Your task to perform on an android device: Go to Google maps Image 0: 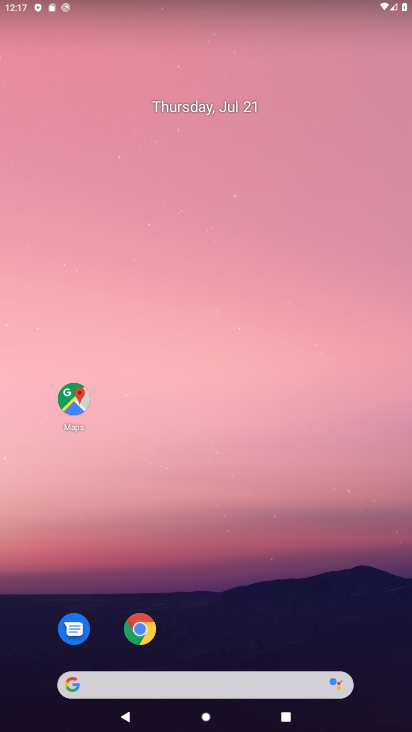
Step 0: click (296, 119)
Your task to perform on an android device: Go to Google maps Image 1: 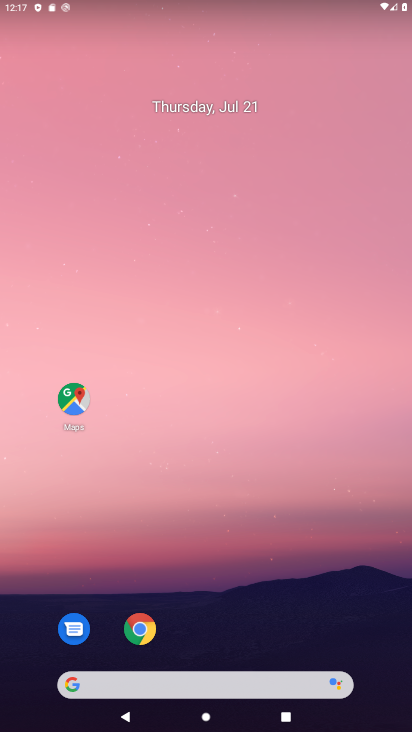
Step 1: drag from (260, 278) to (264, 72)
Your task to perform on an android device: Go to Google maps Image 2: 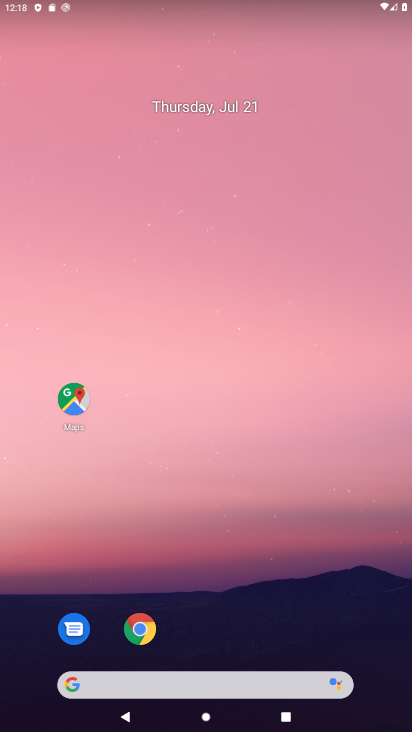
Step 2: drag from (357, 612) to (271, 54)
Your task to perform on an android device: Go to Google maps Image 3: 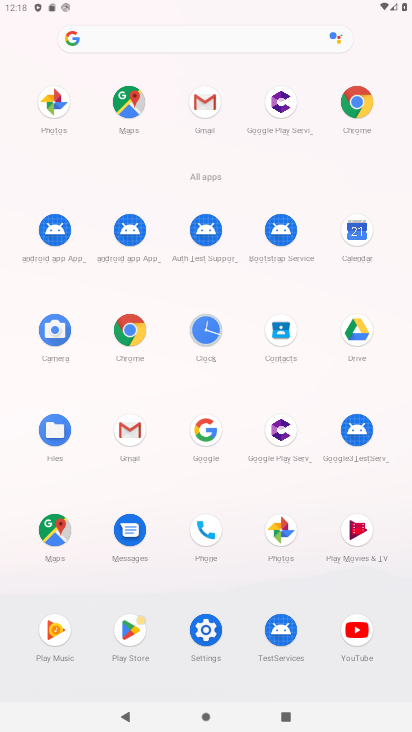
Step 3: click (135, 103)
Your task to perform on an android device: Go to Google maps Image 4: 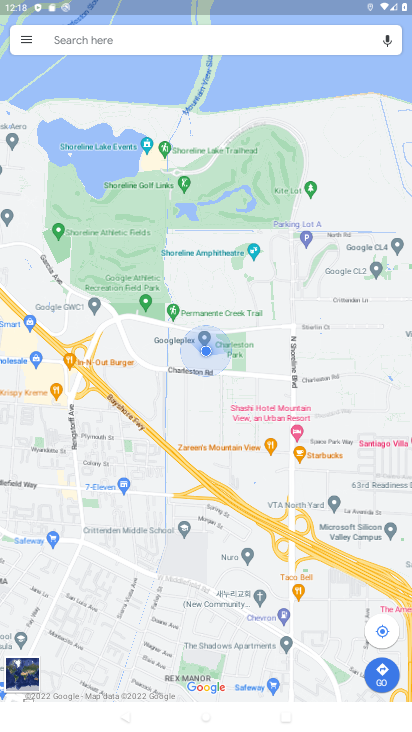
Step 4: task complete